Your task to perform on an android device: turn on improve location accuracy Image 0: 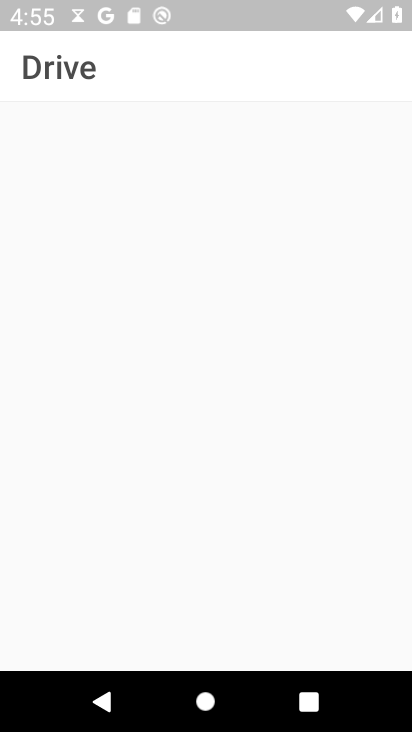
Step 0: press home button
Your task to perform on an android device: turn on improve location accuracy Image 1: 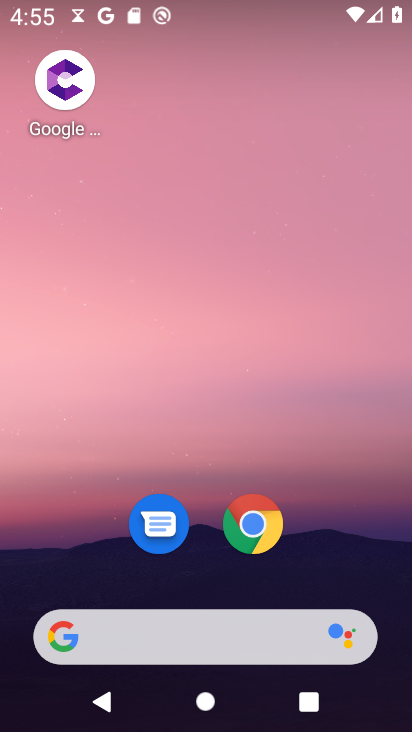
Step 1: drag from (171, 631) to (174, 145)
Your task to perform on an android device: turn on improve location accuracy Image 2: 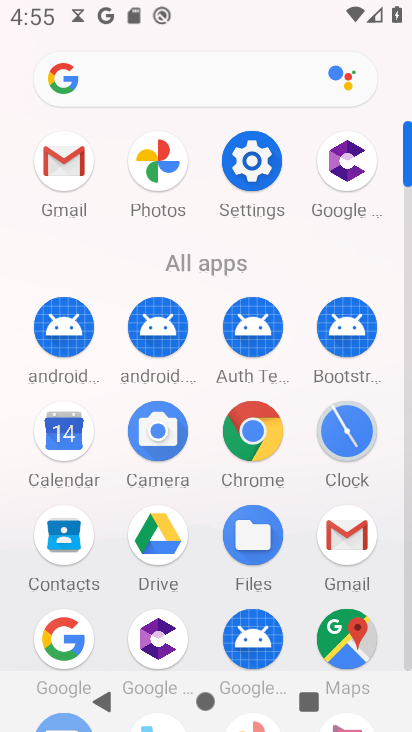
Step 2: click (251, 183)
Your task to perform on an android device: turn on improve location accuracy Image 3: 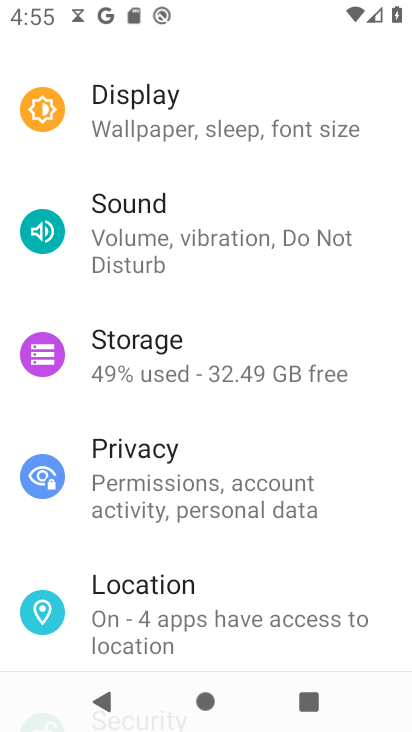
Step 3: click (170, 617)
Your task to perform on an android device: turn on improve location accuracy Image 4: 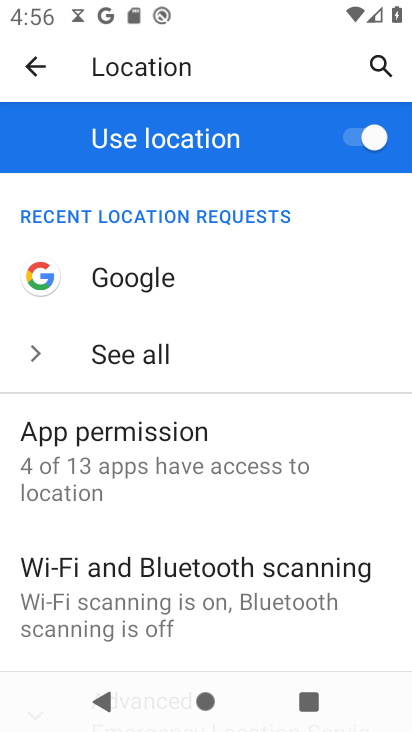
Step 4: drag from (142, 532) to (84, 137)
Your task to perform on an android device: turn on improve location accuracy Image 5: 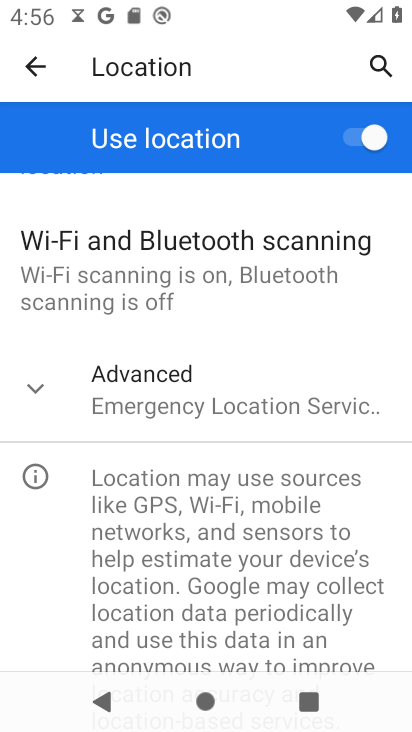
Step 5: click (161, 415)
Your task to perform on an android device: turn on improve location accuracy Image 6: 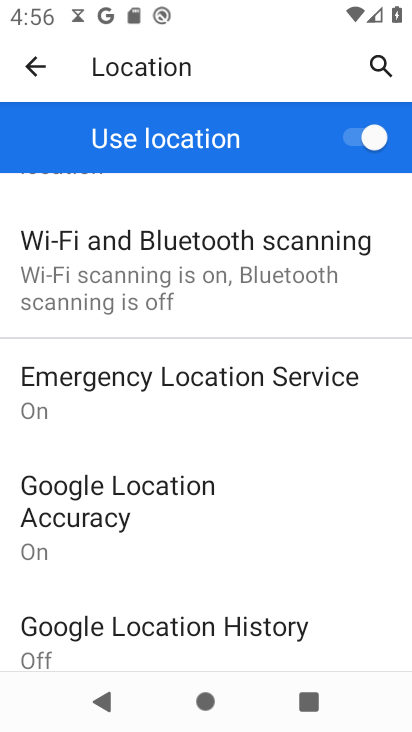
Step 6: click (125, 520)
Your task to perform on an android device: turn on improve location accuracy Image 7: 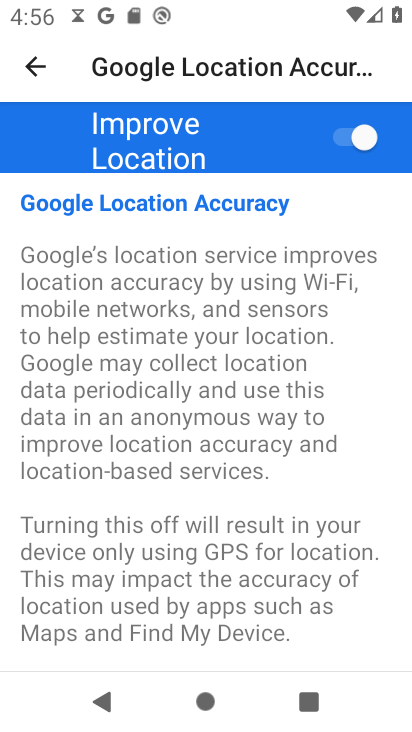
Step 7: task complete